Your task to perform on an android device: Go to accessibility settings Image 0: 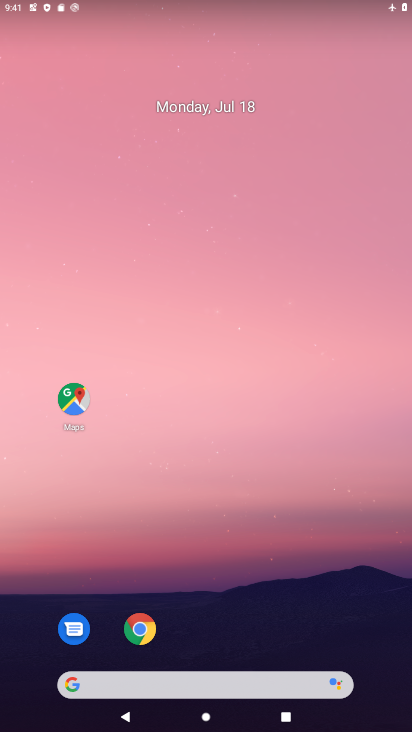
Step 0: drag from (350, 646) to (168, 190)
Your task to perform on an android device: Go to accessibility settings Image 1: 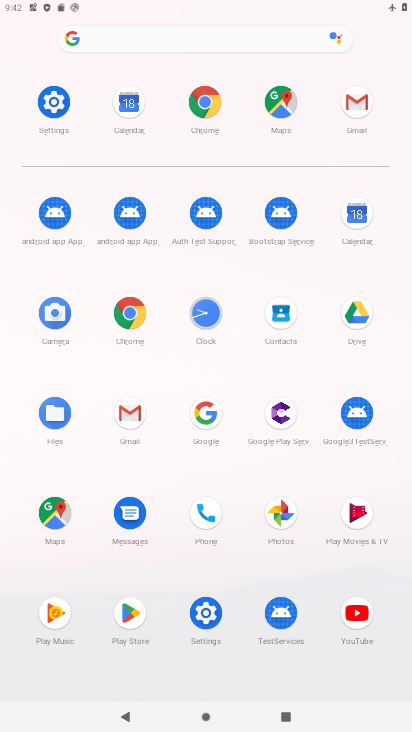
Step 1: click (49, 110)
Your task to perform on an android device: Go to accessibility settings Image 2: 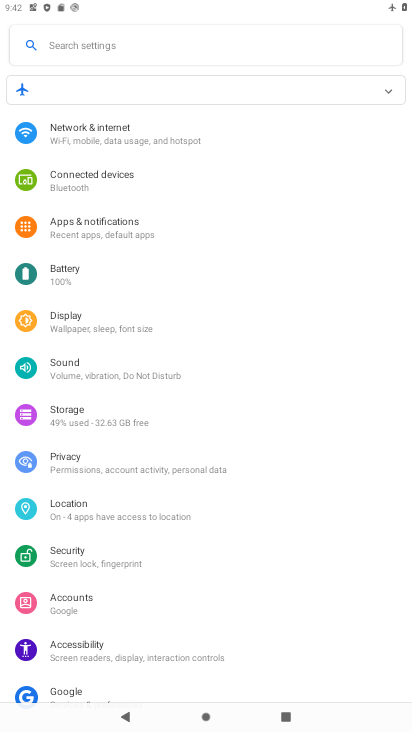
Step 2: drag from (300, 667) to (201, 203)
Your task to perform on an android device: Go to accessibility settings Image 3: 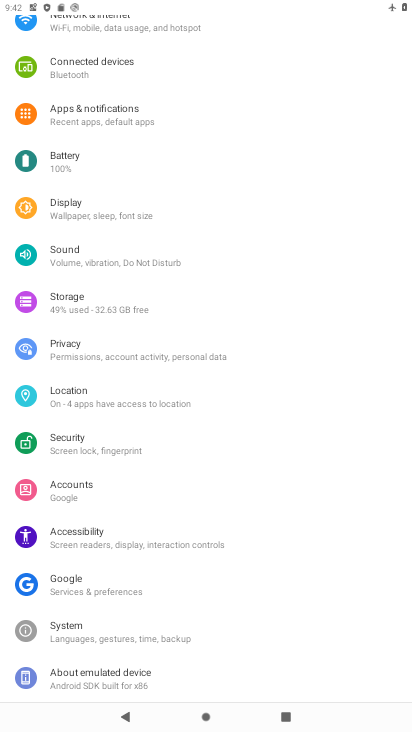
Step 3: click (102, 531)
Your task to perform on an android device: Go to accessibility settings Image 4: 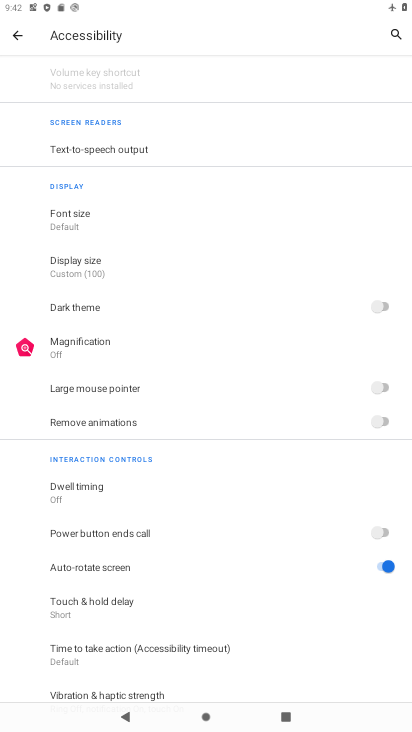
Step 4: task complete